Your task to perform on an android device: Show me recent news Image 0: 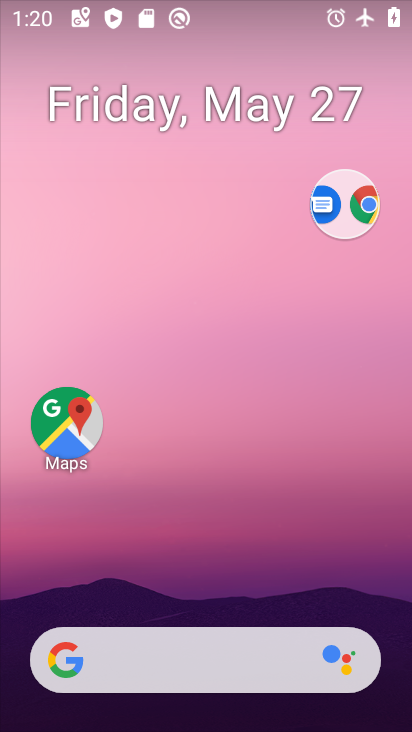
Step 0: drag from (225, 621) to (184, 166)
Your task to perform on an android device: Show me recent news Image 1: 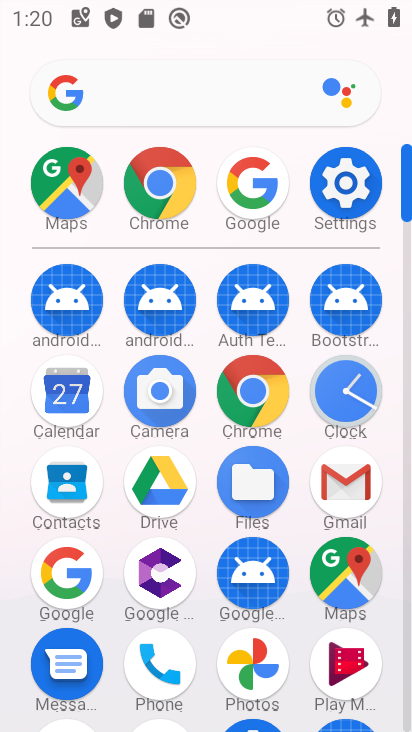
Step 1: click (87, 592)
Your task to perform on an android device: Show me recent news Image 2: 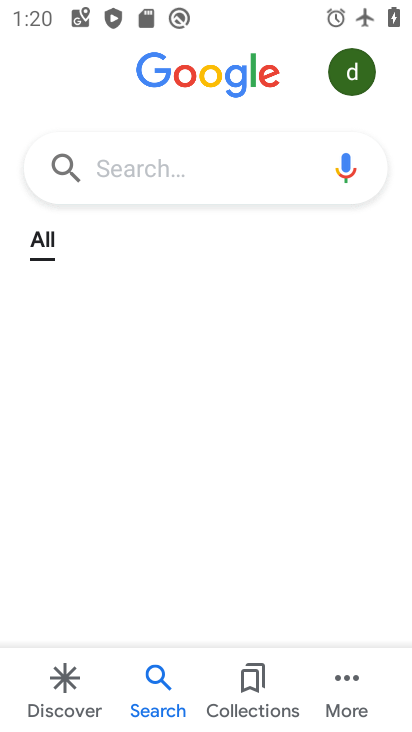
Step 2: click (149, 182)
Your task to perform on an android device: Show me recent news Image 3: 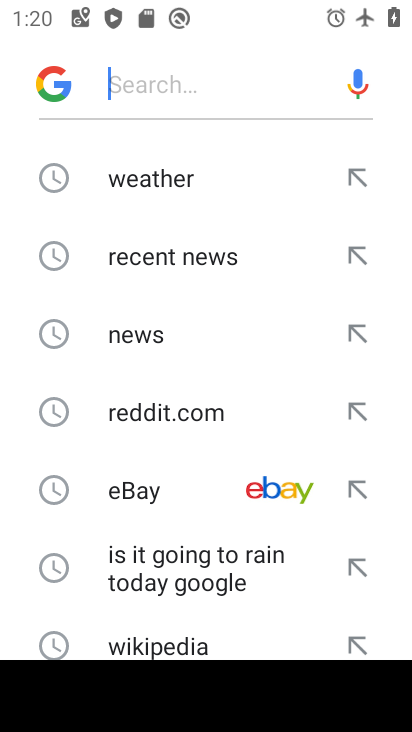
Step 3: click (186, 265)
Your task to perform on an android device: Show me recent news Image 4: 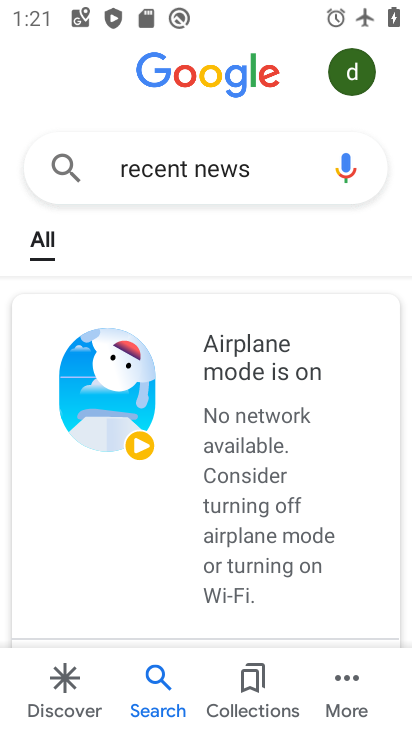
Step 4: task complete